Your task to perform on an android device: Clear all items from cart on bestbuy. Search for "jbl charge 4" on bestbuy, select the first entry, add it to the cart, then select checkout. Image 0: 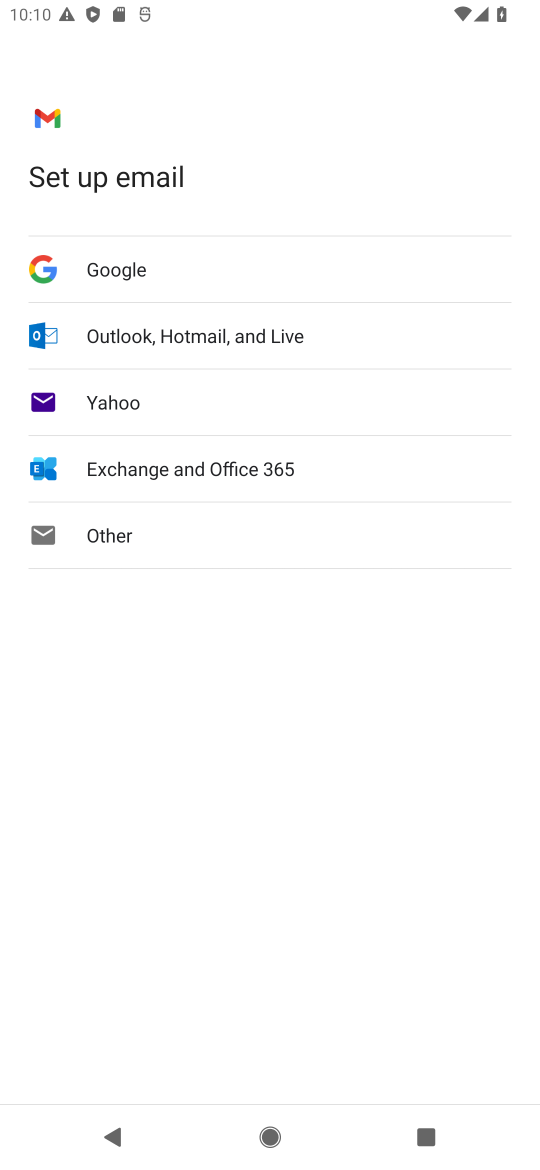
Step 0: task complete